Your task to perform on an android device: Open wifi settings Image 0: 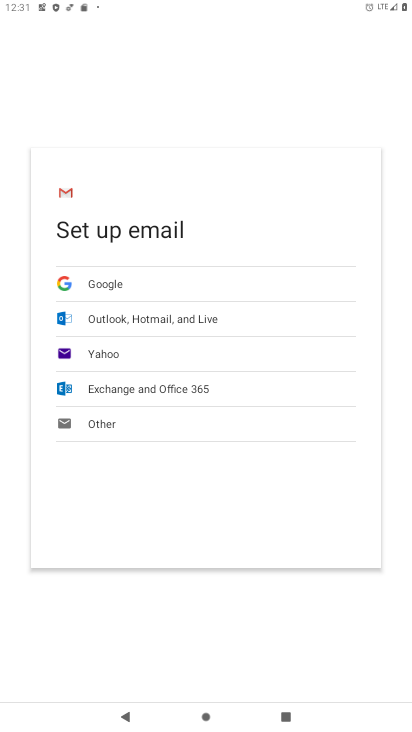
Step 0: press home button
Your task to perform on an android device: Open wifi settings Image 1: 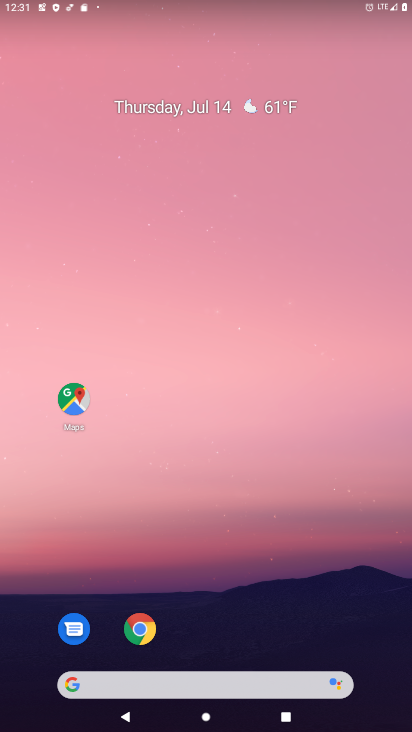
Step 1: drag from (225, 547) to (200, 134)
Your task to perform on an android device: Open wifi settings Image 2: 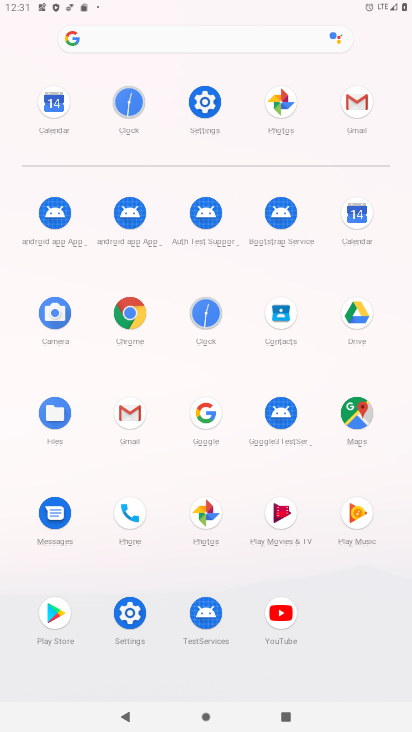
Step 2: click (206, 102)
Your task to perform on an android device: Open wifi settings Image 3: 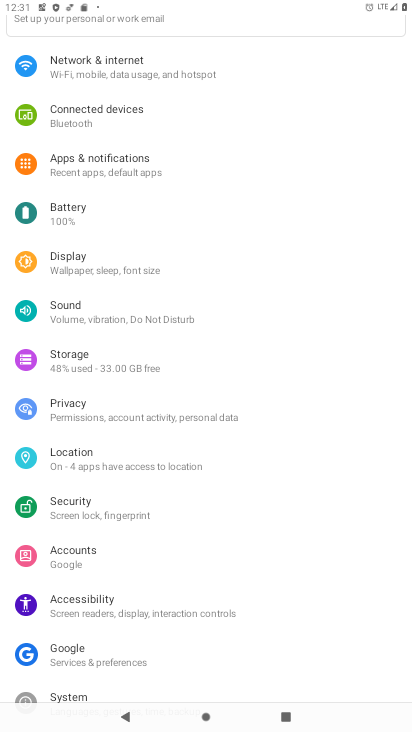
Step 3: click (87, 59)
Your task to perform on an android device: Open wifi settings Image 4: 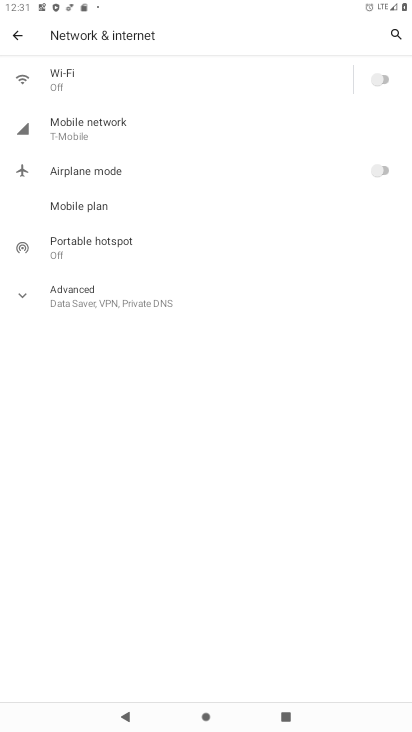
Step 4: click (79, 74)
Your task to perform on an android device: Open wifi settings Image 5: 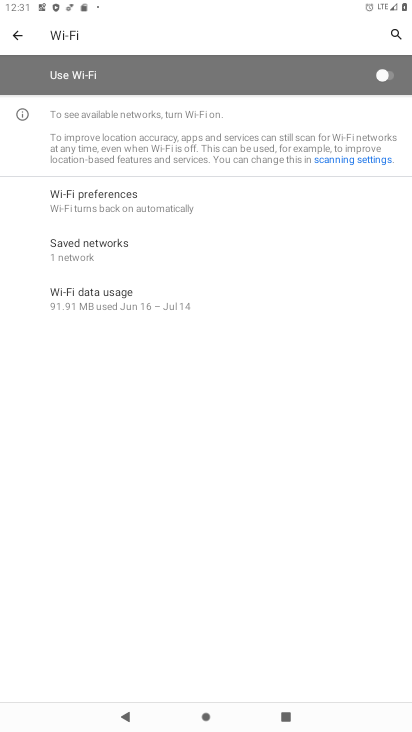
Step 5: task complete